Your task to perform on an android device: check storage Image 0: 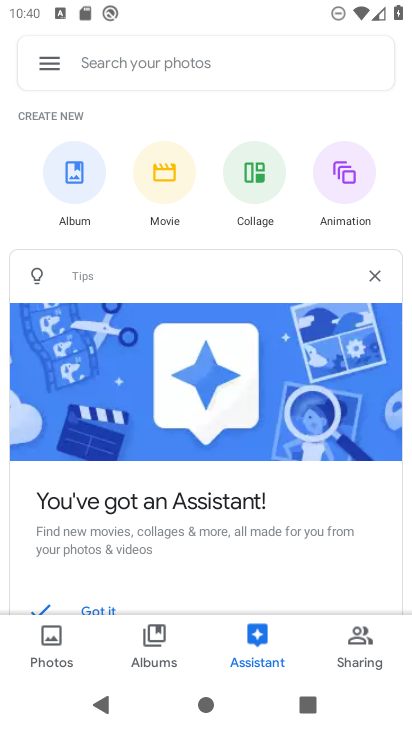
Step 0: press home button
Your task to perform on an android device: check storage Image 1: 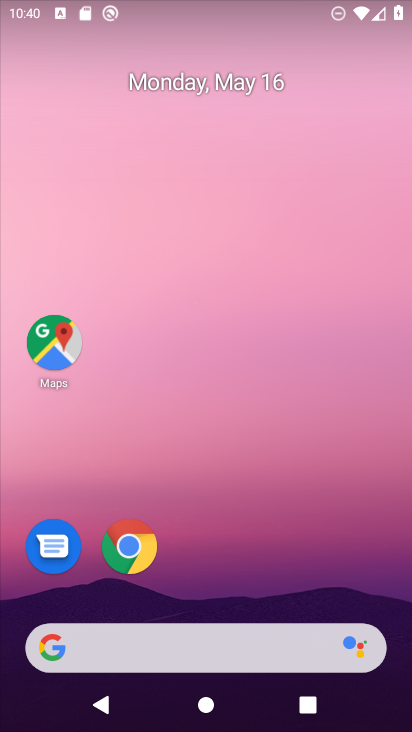
Step 1: drag from (220, 583) to (209, 44)
Your task to perform on an android device: check storage Image 2: 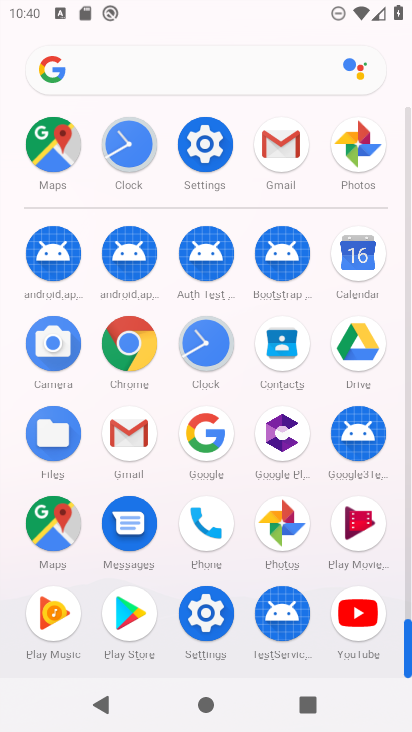
Step 2: click (194, 139)
Your task to perform on an android device: check storage Image 3: 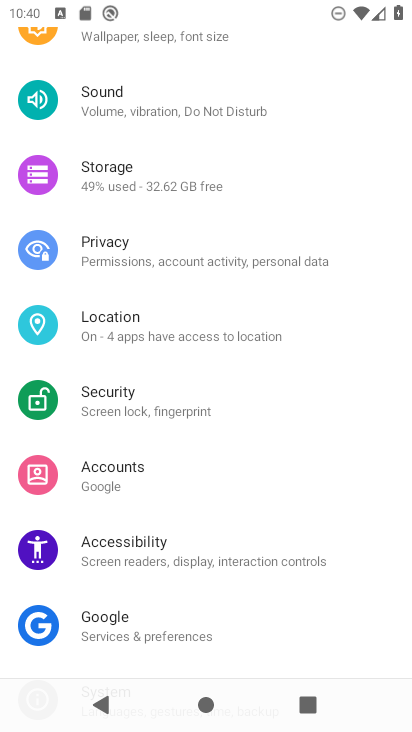
Step 3: click (136, 197)
Your task to perform on an android device: check storage Image 4: 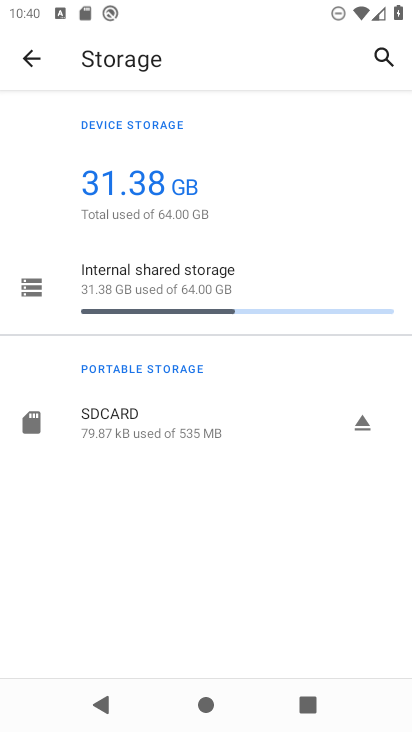
Step 4: task complete